Your task to perform on an android device: Show the shopping cart on target.com. Image 0: 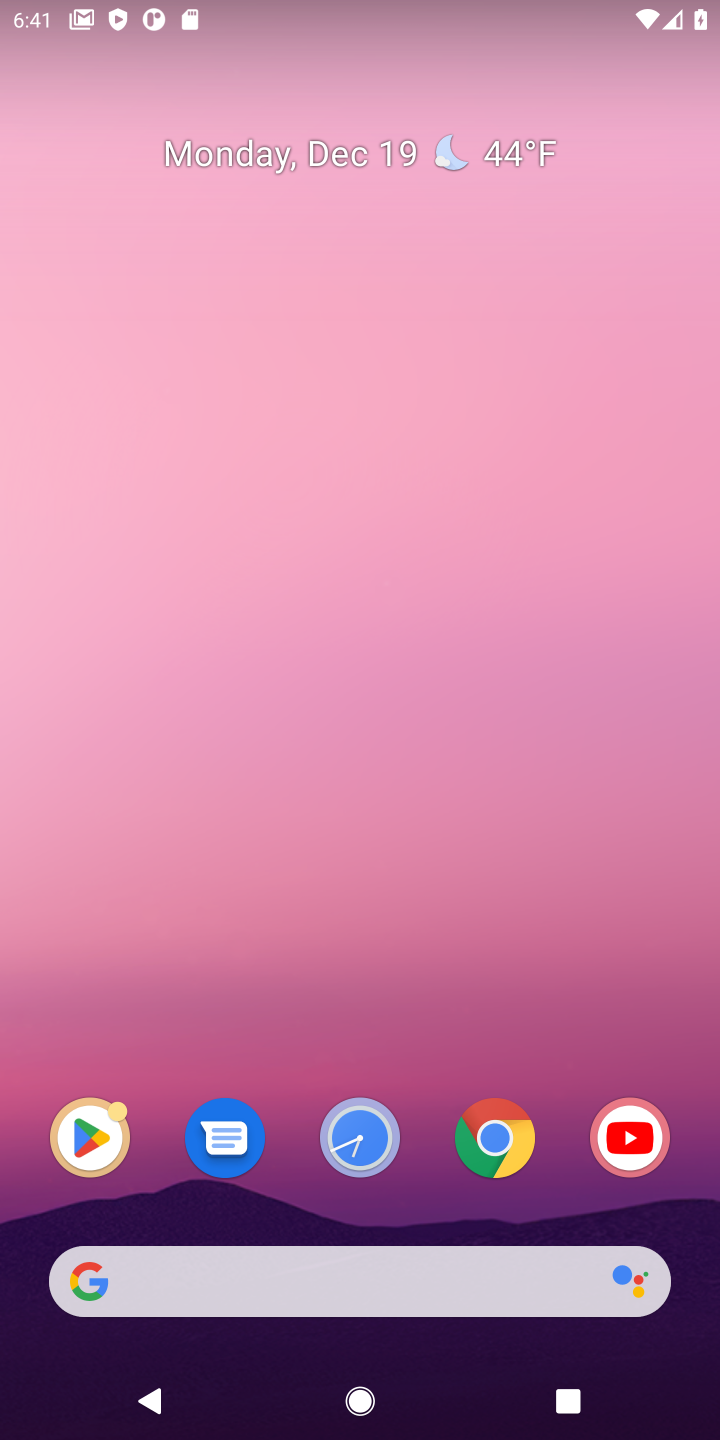
Step 0: click (496, 1147)
Your task to perform on an android device: Show the shopping cart on target.com. Image 1: 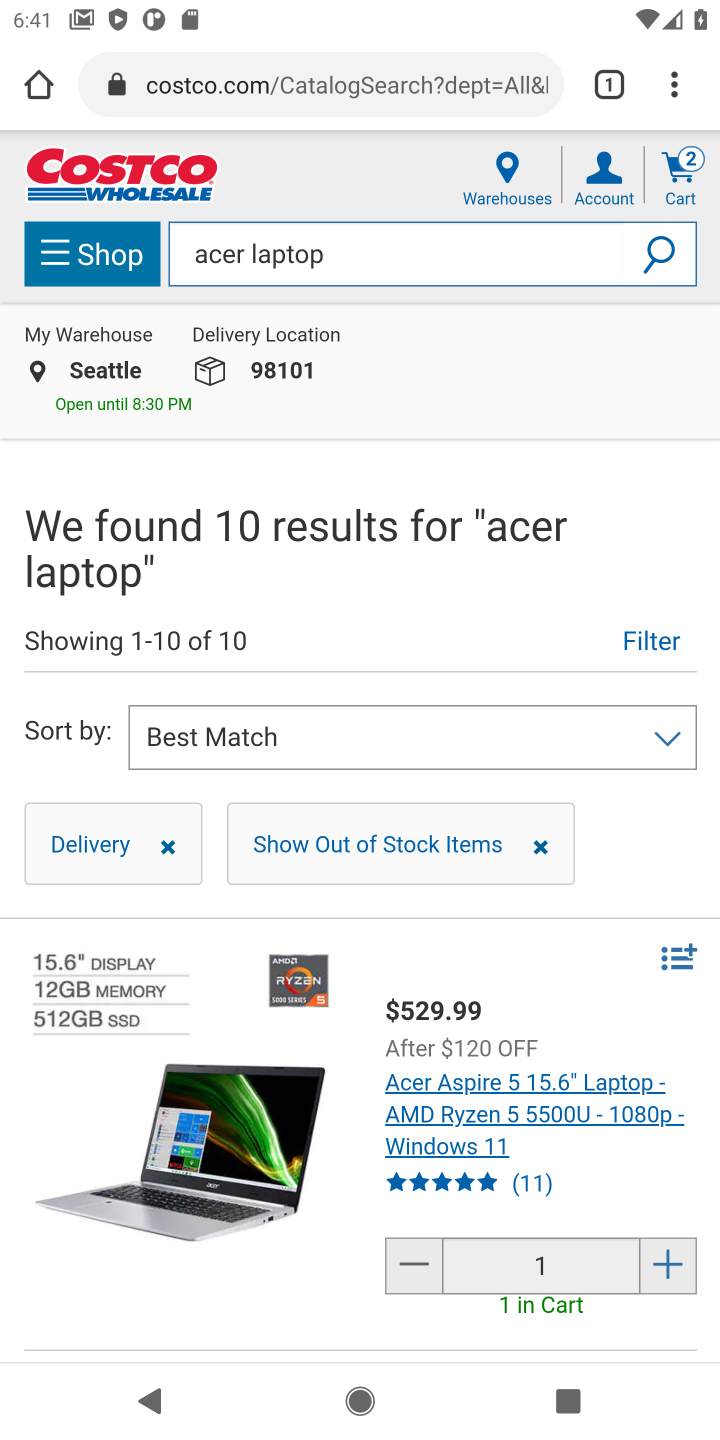
Step 1: click (332, 84)
Your task to perform on an android device: Show the shopping cart on target.com. Image 2: 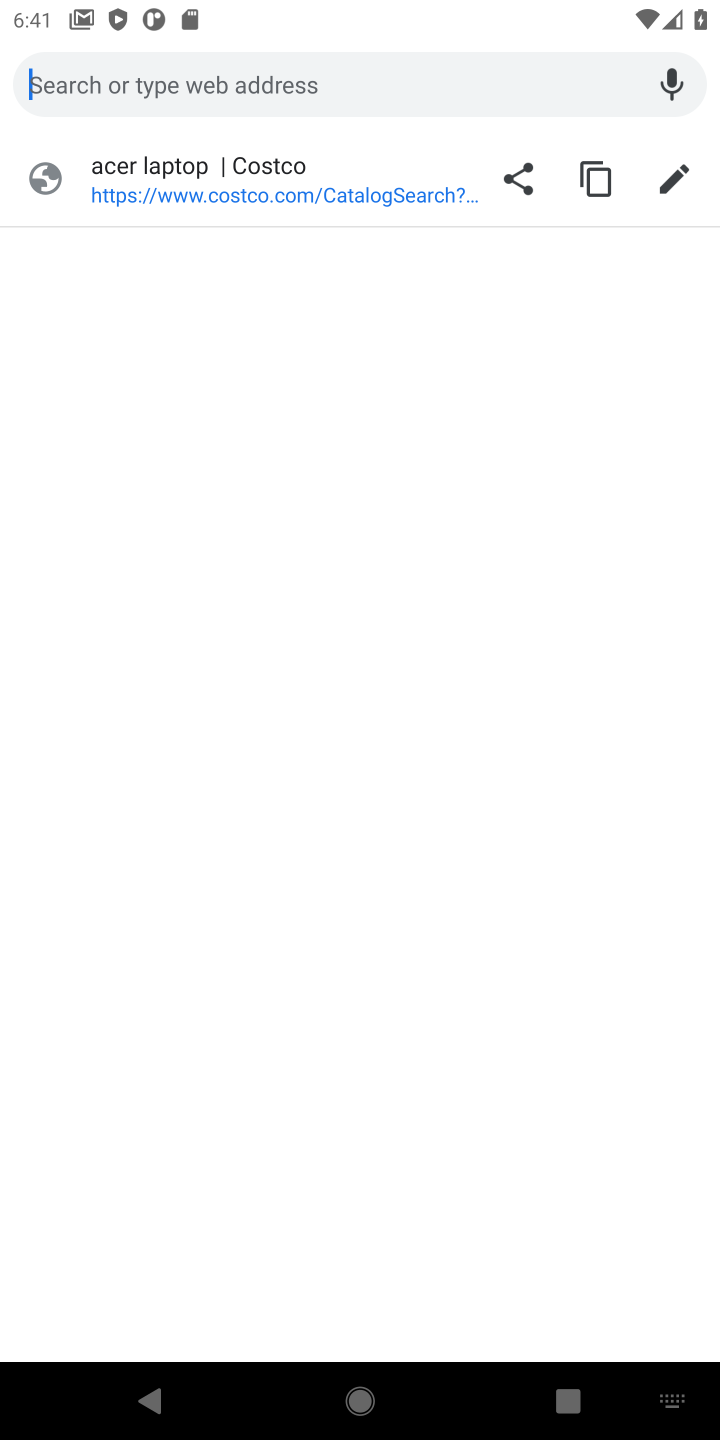
Step 2: type "target"
Your task to perform on an android device: Show the shopping cart on target.com. Image 3: 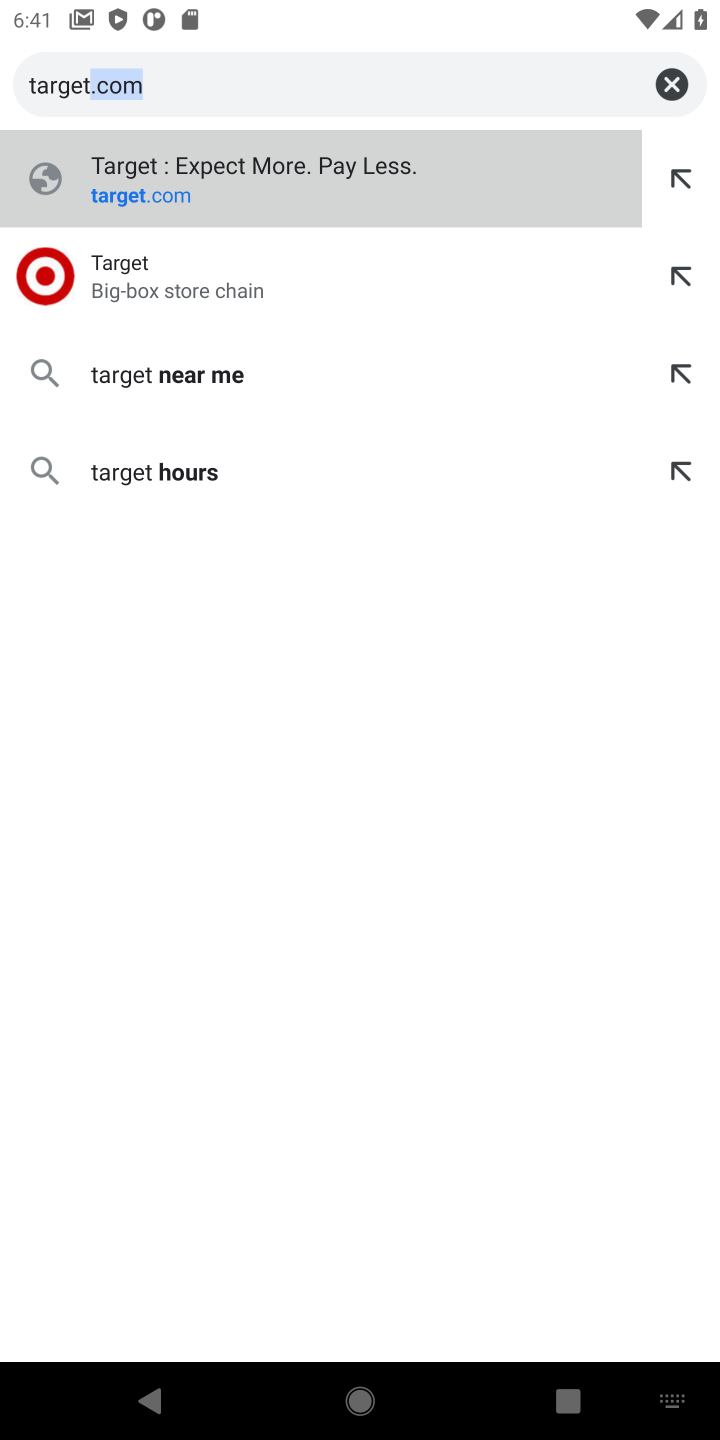
Step 3: click (123, 205)
Your task to perform on an android device: Show the shopping cart on target.com. Image 4: 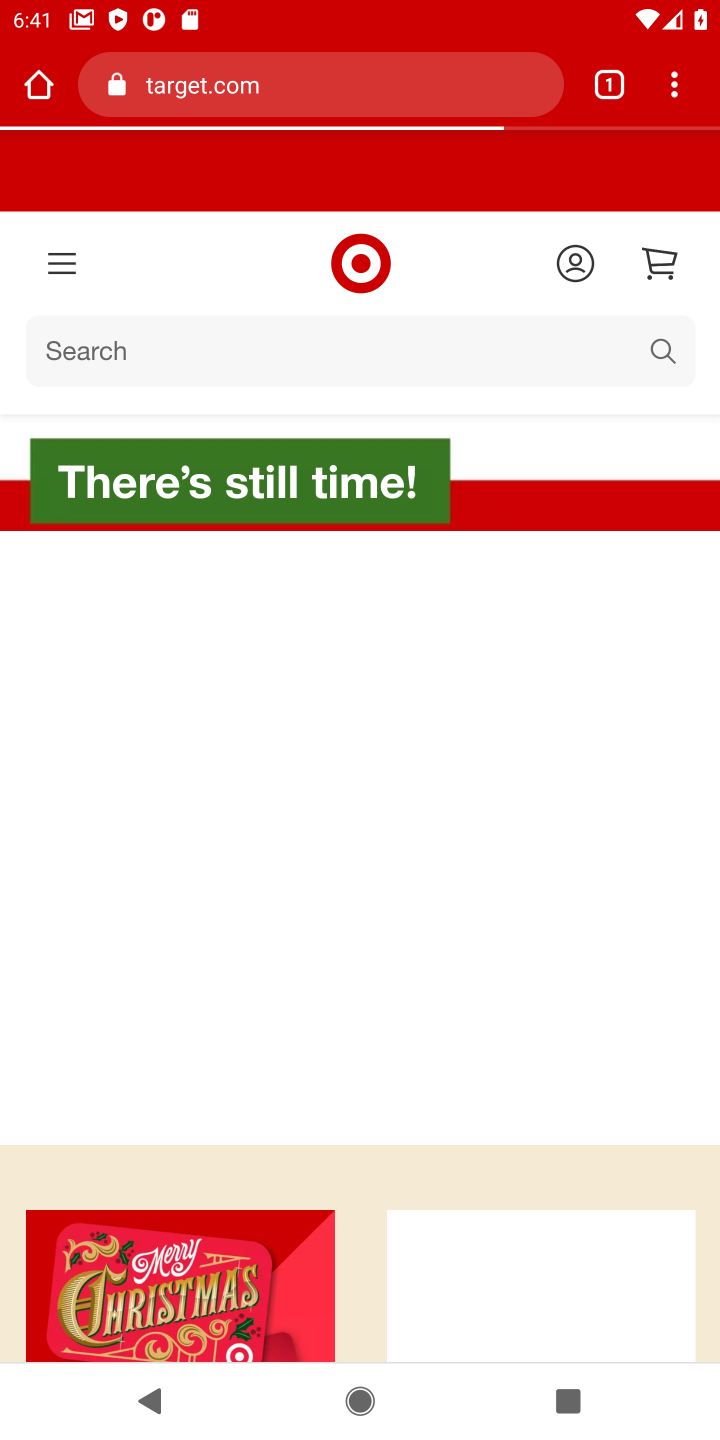
Step 4: task complete